Your task to perform on an android device: Open display settings Image 0: 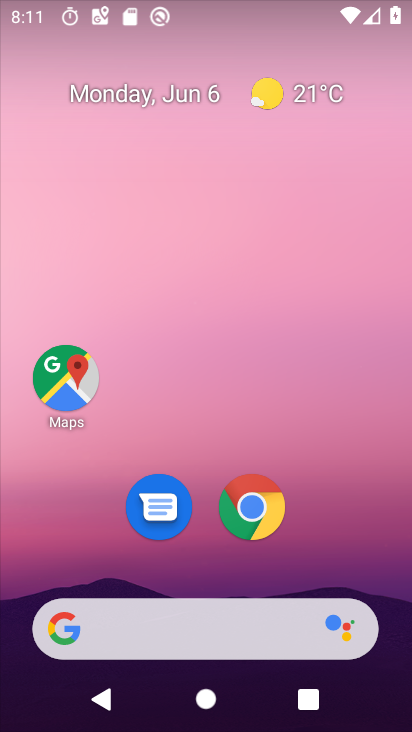
Step 0: press home button
Your task to perform on an android device: Open display settings Image 1: 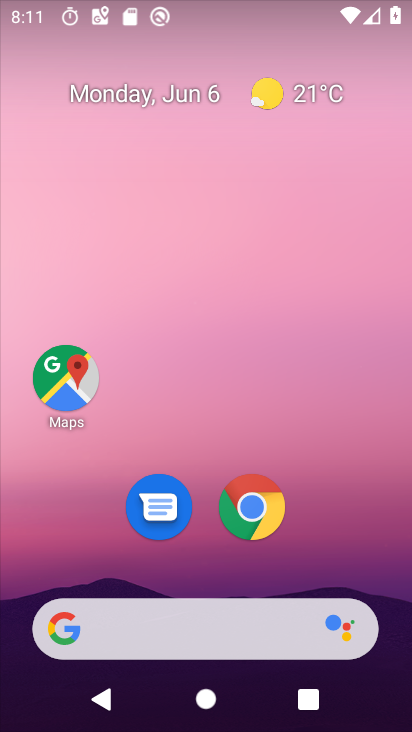
Step 1: drag from (352, 587) to (310, 8)
Your task to perform on an android device: Open display settings Image 2: 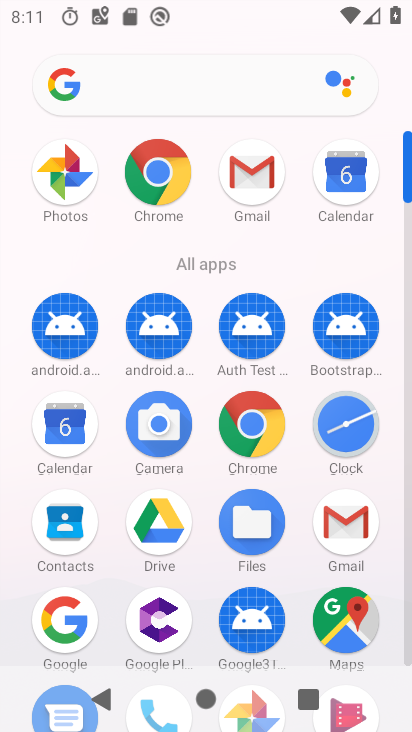
Step 2: click (409, 598)
Your task to perform on an android device: Open display settings Image 3: 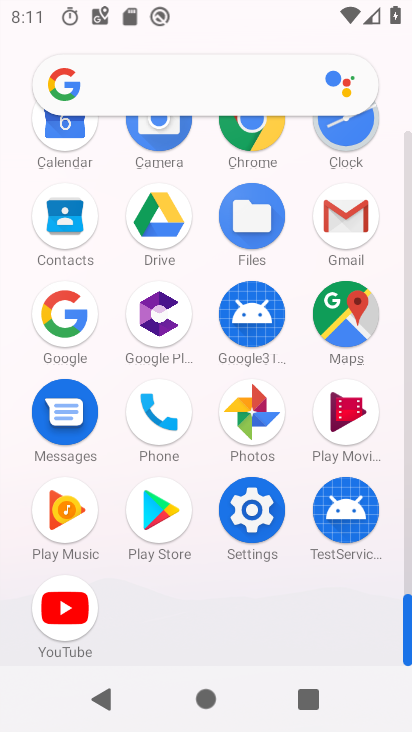
Step 3: click (409, 598)
Your task to perform on an android device: Open display settings Image 4: 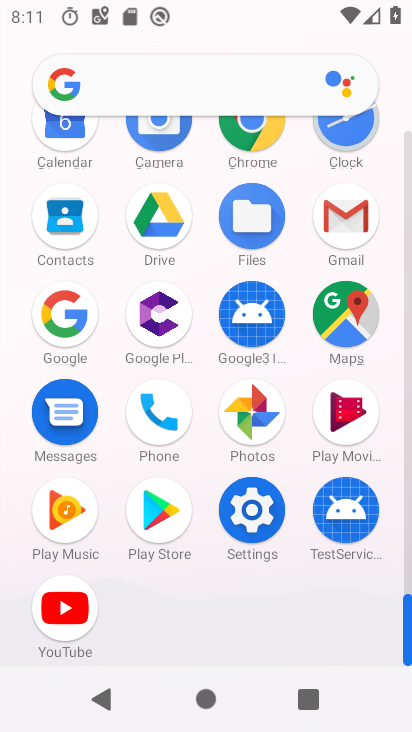
Step 4: click (256, 509)
Your task to perform on an android device: Open display settings Image 5: 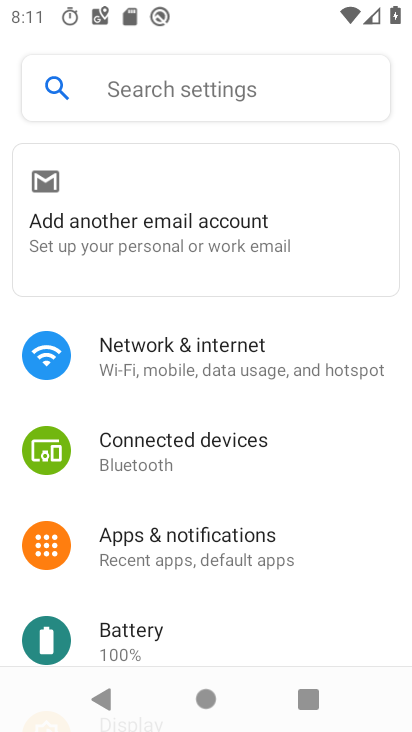
Step 5: drag from (240, 521) to (254, 218)
Your task to perform on an android device: Open display settings Image 6: 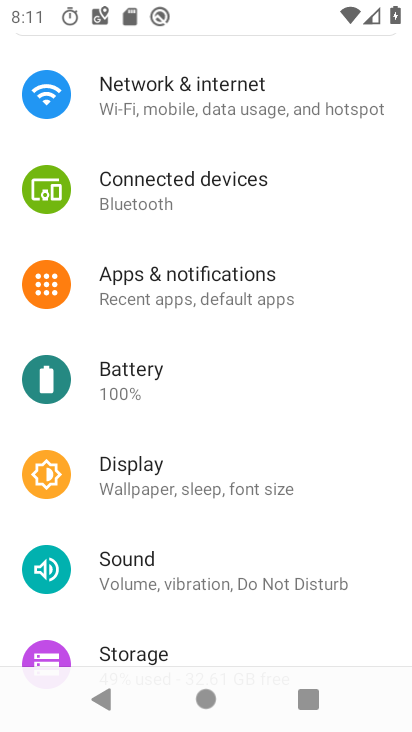
Step 6: click (159, 479)
Your task to perform on an android device: Open display settings Image 7: 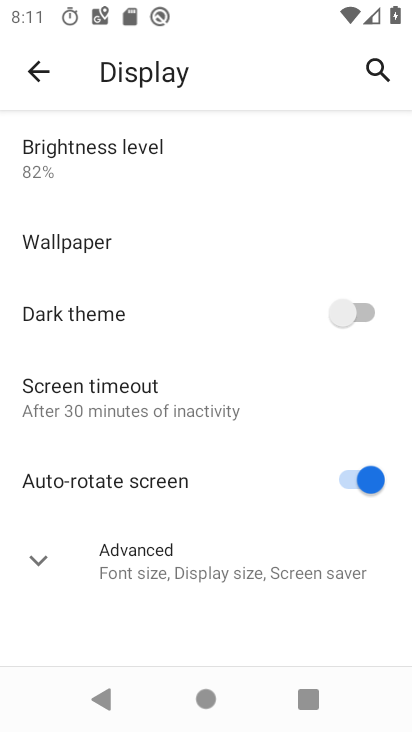
Step 7: task complete